Your task to perform on an android device: Open Google Image 0: 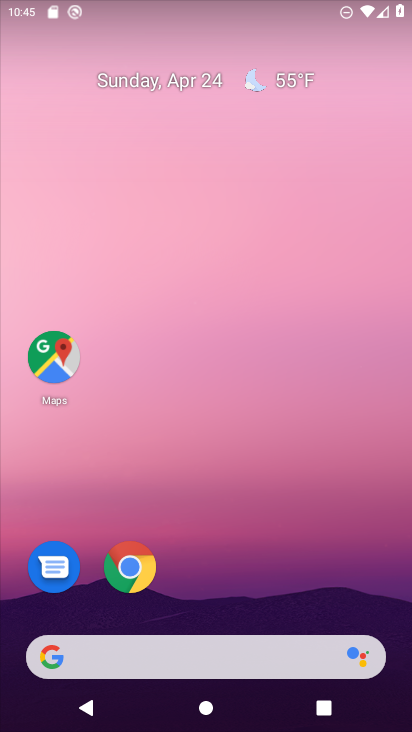
Step 0: drag from (372, 425) to (363, 177)
Your task to perform on an android device: Open Google Image 1: 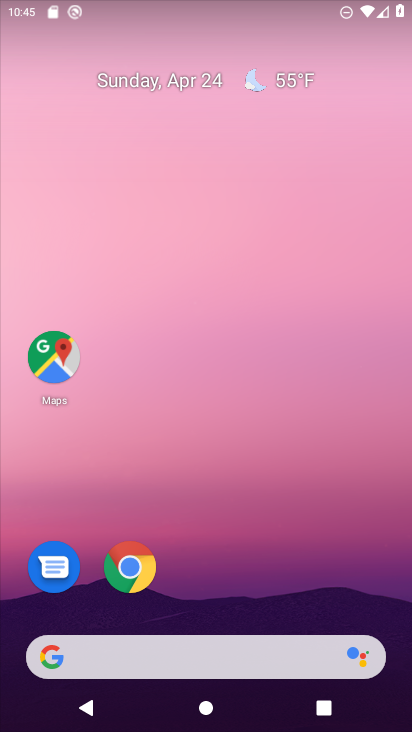
Step 1: drag from (332, 344) to (324, 286)
Your task to perform on an android device: Open Google Image 2: 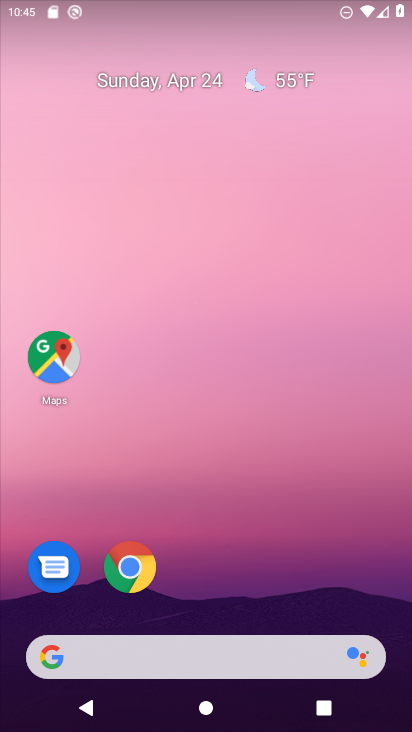
Step 2: drag from (393, 612) to (334, 270)
Your task to perform on an android device: Open Google Image 3: 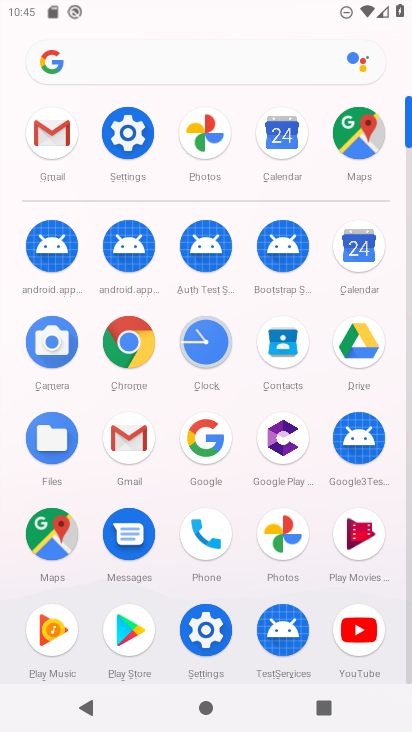
Step 3: click (205, 435)
Your task to perform on an android device: Open Google Image 4: 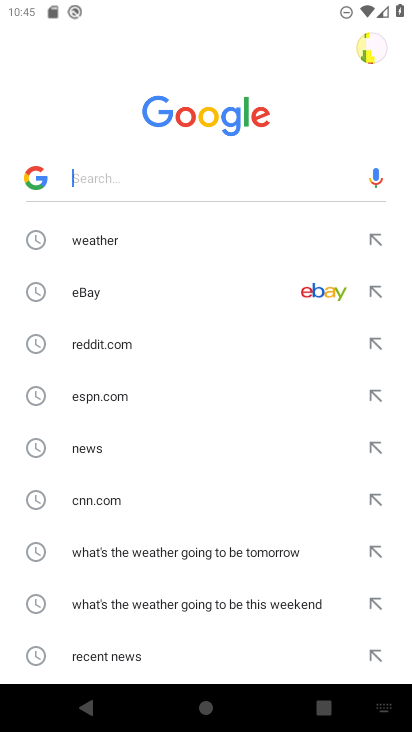
Step 4: drag from (210, 555) to (202, 364)
Your task to perform on an android device: Open Google Image 5: 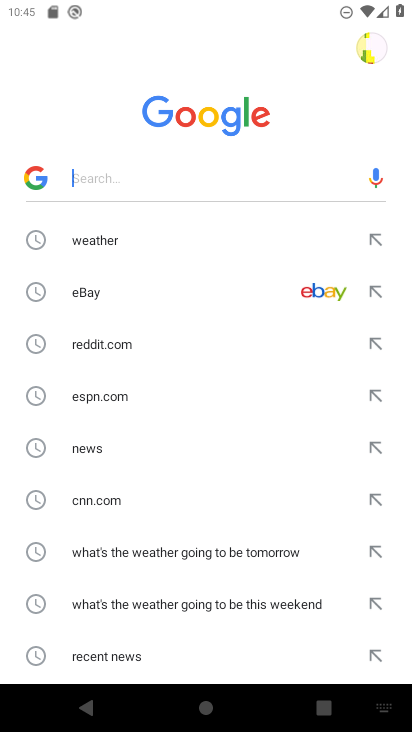
Step 5: press back button
Your task to perform on an android device: Open Google Image 6: 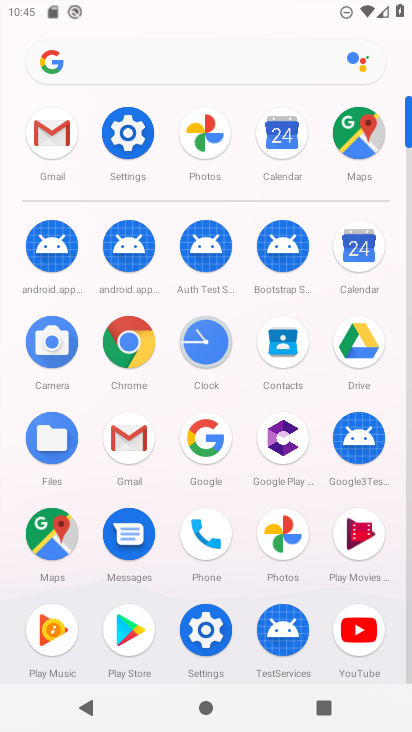
Step 6: click (196, 438)
Your task to perform on an android device: Open Google Image 7: 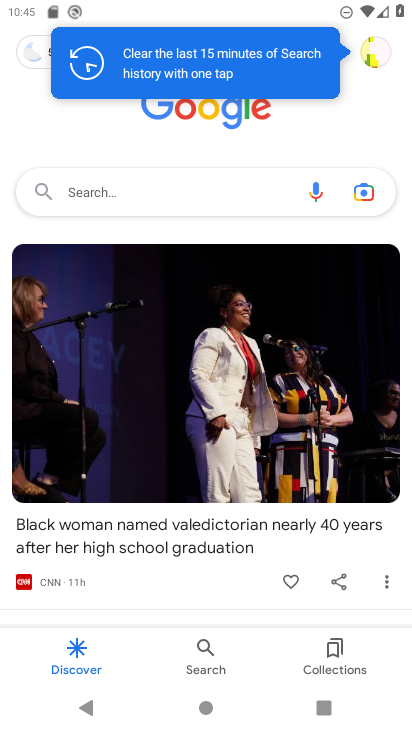
Step 7: task complete